Your task to perform on an android device: toggle sleep mode Image 0: 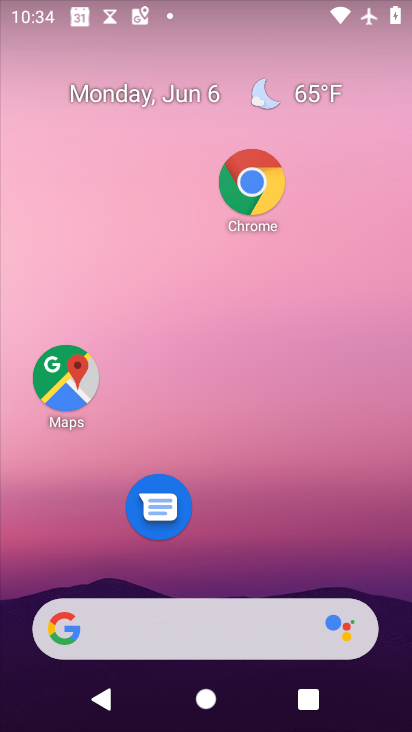
Step 0: drag from (254, 462) to (287, 185)
Your task to perform on an android device: toggle sleep mode Image 1: 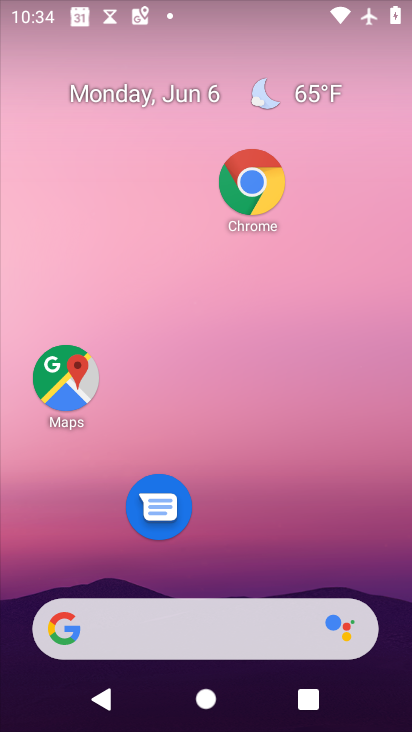
Step 1: drag from (271, 451) to (301, 123)
Your task to perform on an android device: toggle sleep mode Image 2: 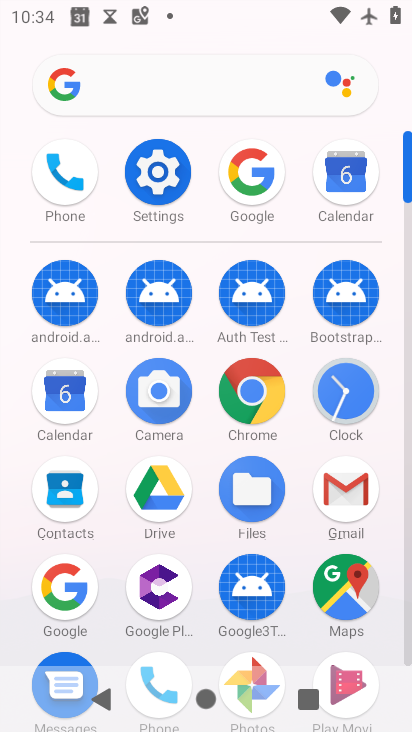
Step 2: click (154, 166)
Your task to perform on an android device: toggle sleep mode Image 3: 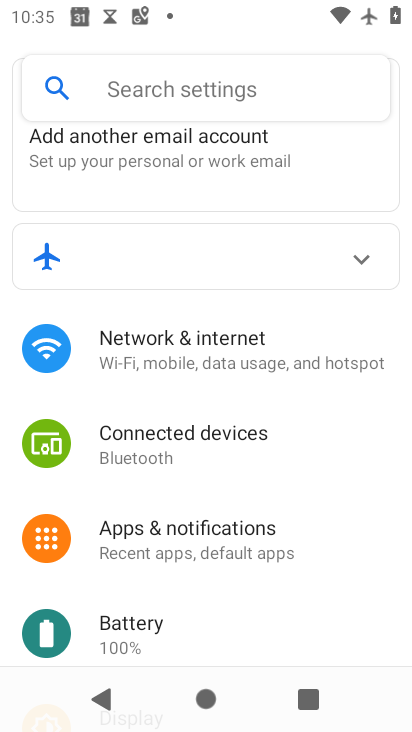
Step 3: task complete